Your task to perform on an android device: Set the phone to "Do not disturb". Image 0: 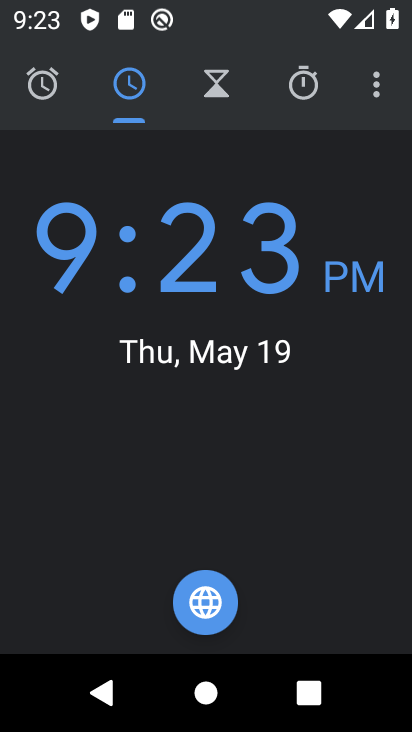
Step 0: press home button
Your task to perform on an android device: Set the phone to "Do not disturb". Image 1: 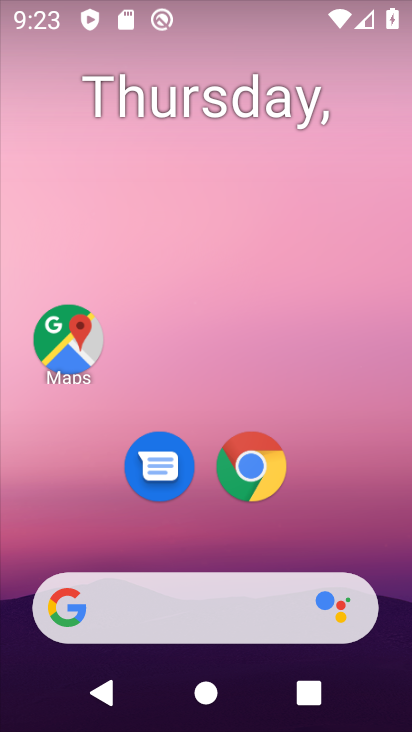
Step 1: drag from (280, 552) to (325, 199)
Your task to perform on an android device: Set the phone to "Do not disturb". Image 2: 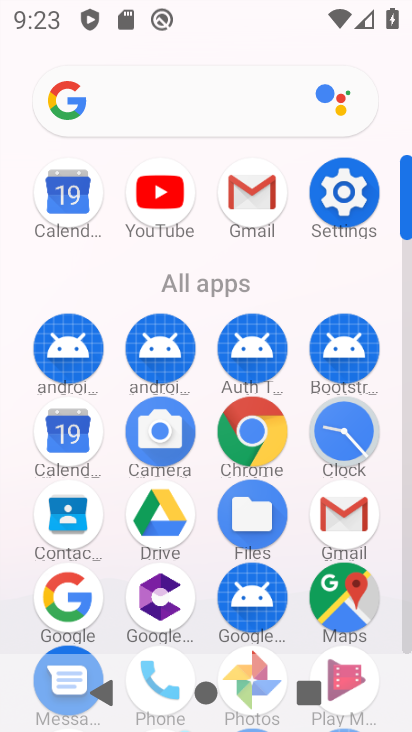
Step 2: click (366, 207)
Your task to perform on an android device: Set the phone to "Do not disturb". Image 3: 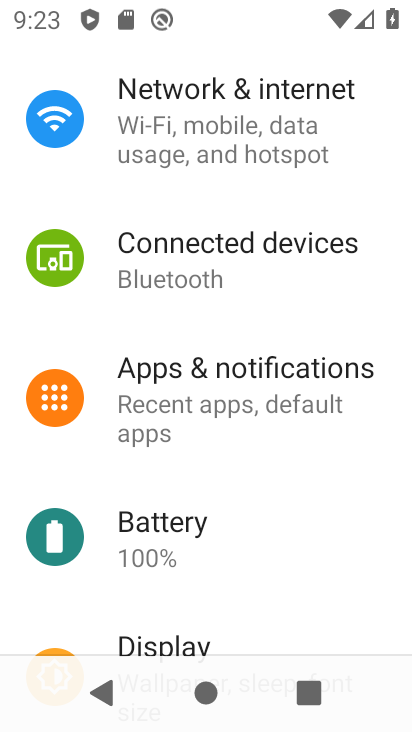
Step 3: drag from (313, 643) to (329, 255)
Your task to perform on an android device: Set the phone to "Do not disturb". Image 4: 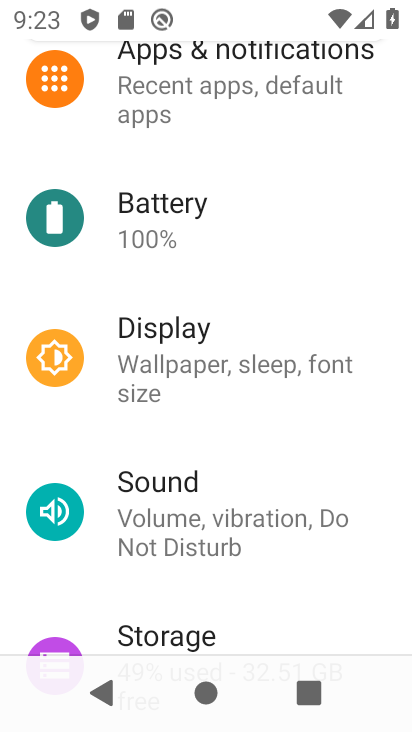
Step 4: click (283, 489)
Your task to perform on an android device: Set the phone to "Do not disturb". Image 5: 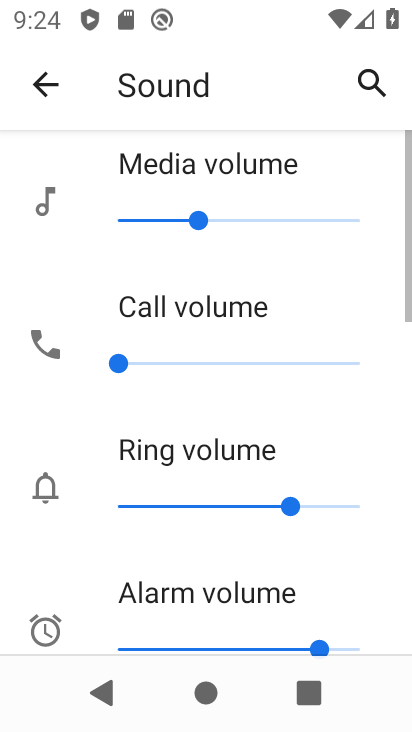
Step 5: drag from (268, 593) to (196, 100)
Your task to perform on an android device: Set the phone to "Do not disturb". Image 6: 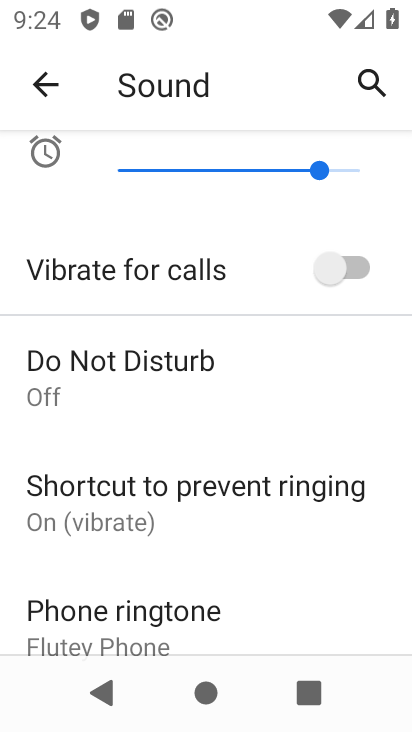
Step 6: click (201, 362)
Your task to perform on an android device: Set the phone to "Do not disturb". Image 7: 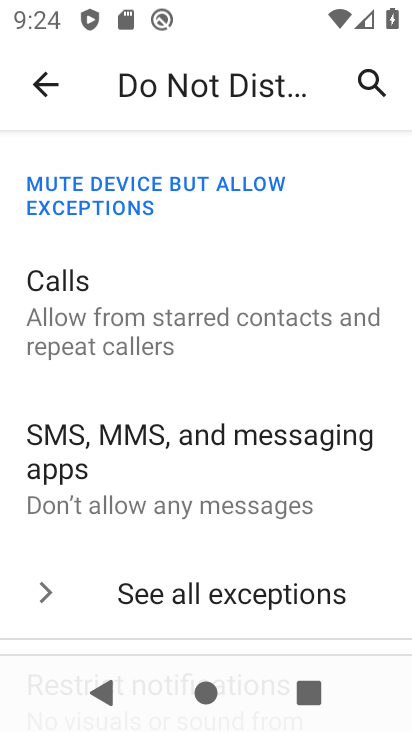
Step 7: drag from (227, 541) to (232, 131)
Your task to perform on an android device: Set the phone to "Do not disturb". Image 8: 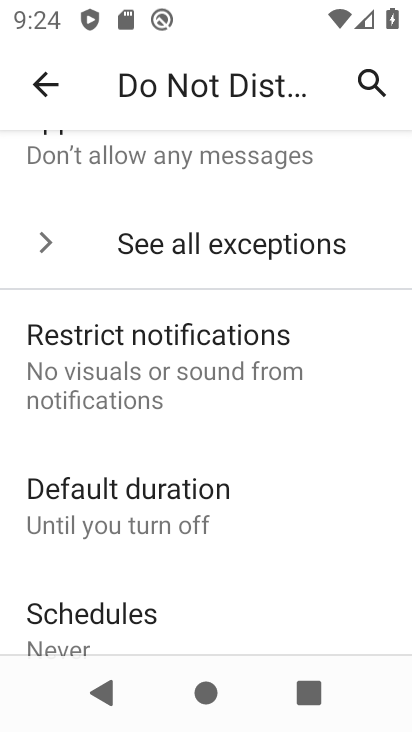
Step 8: drag from (204, 560) to (196, 150)
Your task to perform on an android device: Set the phone to "Do not disturb". Image 9: 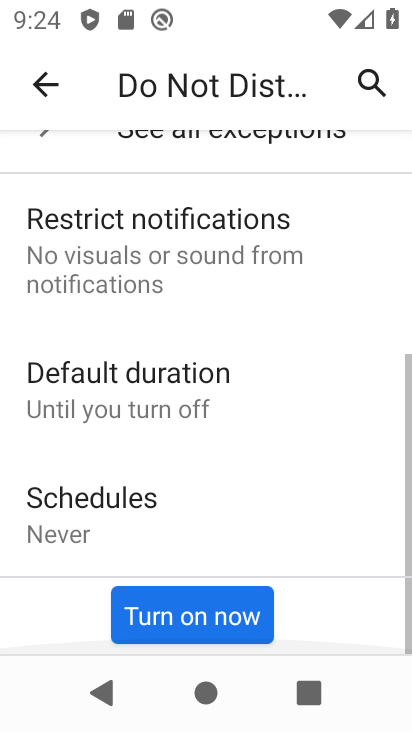
Step 9: click (243, 625)
Your task to perform on an android device: Set the phone to "Do not disturb". Image 10: 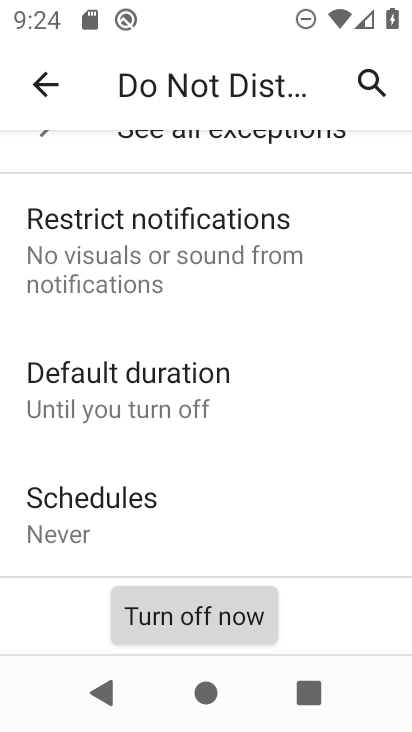
Step 10: task complete